Your task to perform on an android device: stop showing notifications on the lock screen Image 0: 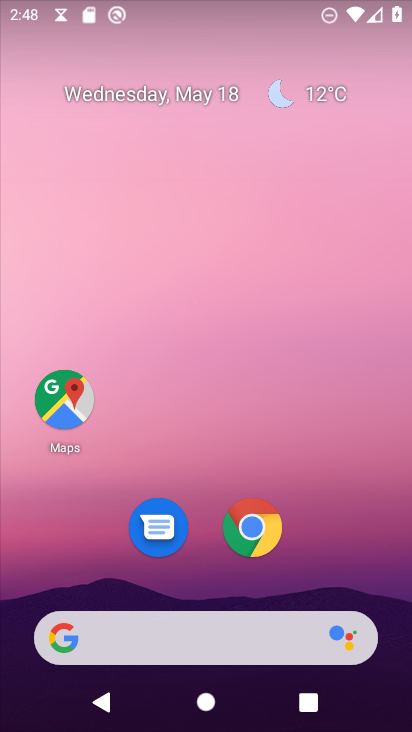
Step 0: drag from (327, 558) to (256, 88)
Your task to perform on an android device: stop showing notifications on the lock screen Image 1: 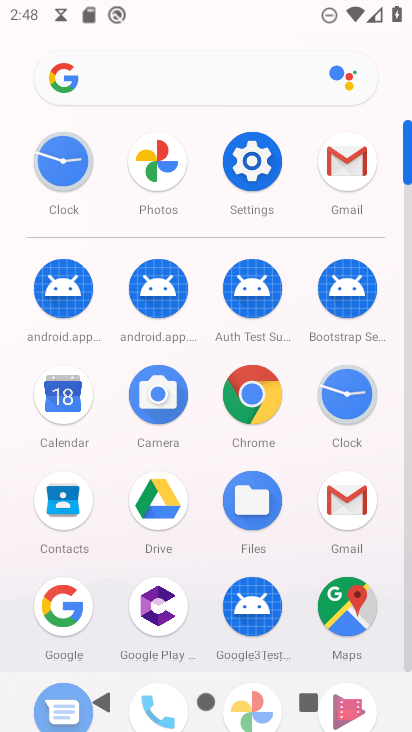
Step 1: click (270, 145)
Your task to perform on an android device: stop showing notifications on the lock screen Image 2: 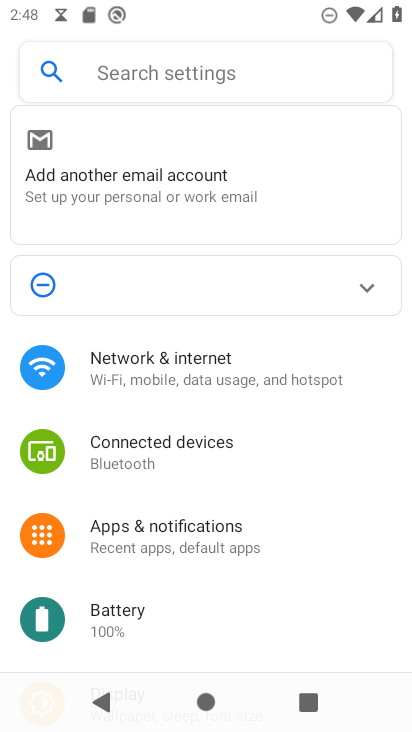
Step 2: click (239, 549)
Your task to perform on an android device: stop showing notifications on the lock screen Image 3: 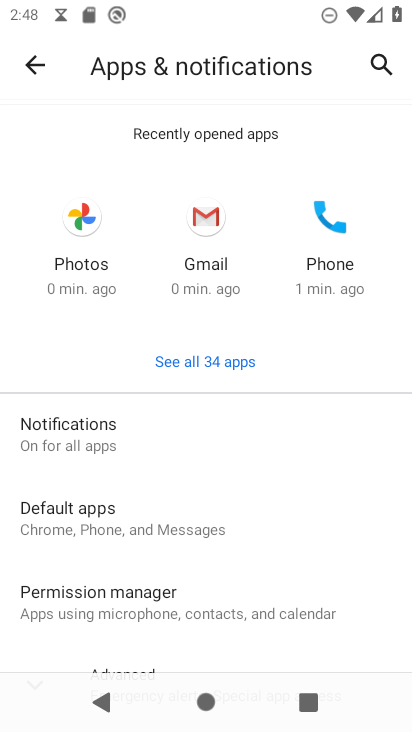
Step 3: click (171, 434)
Your task to perform on an android device: stop showing notifications on the lock screen Image 4: 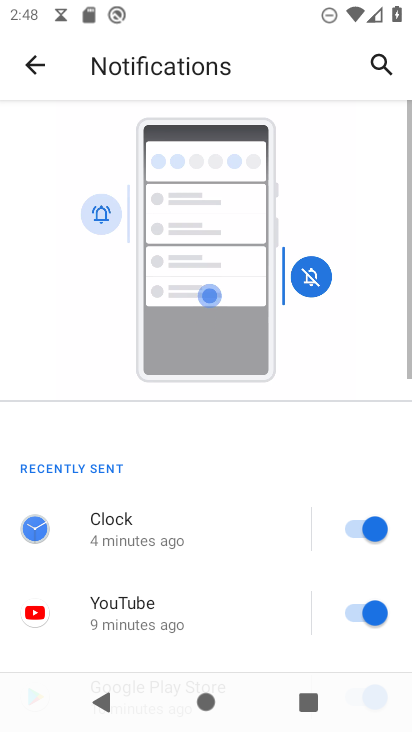
Step 4: drag from (239, 563) to (221, 115)
Your task to perform on an android device: stop showing notifications on the lock screen Image 5: 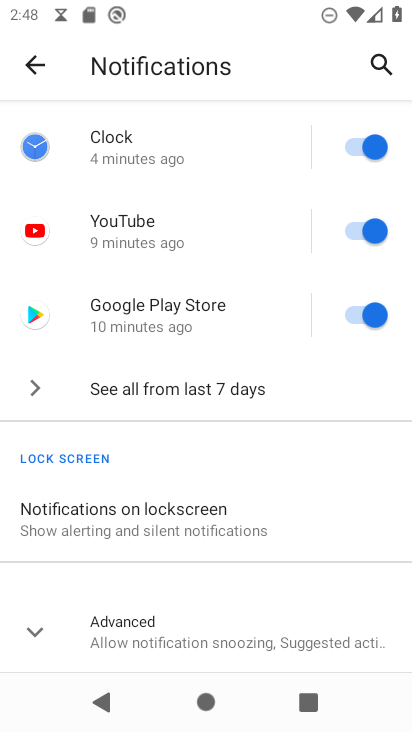
Step 5: click (218, 509)
Your task to perform on an android device: stop showing notifications on the lock screen Image 6: 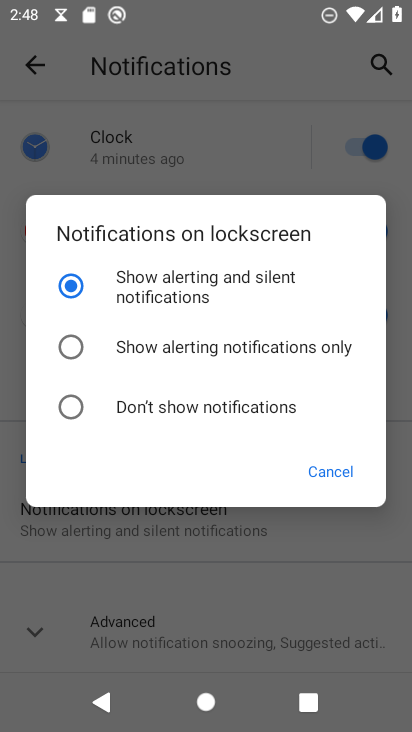
Step 6: click (169, 408)
Your task to perform on an android device: stop showing notifications on the lock screen Image 7: 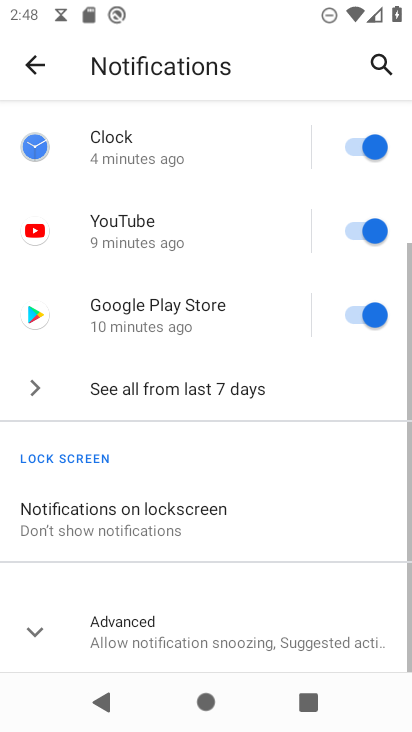
Step 7: task complete